Your task to perform on an android device: delete the emails in spam in the gmail app Image 0: 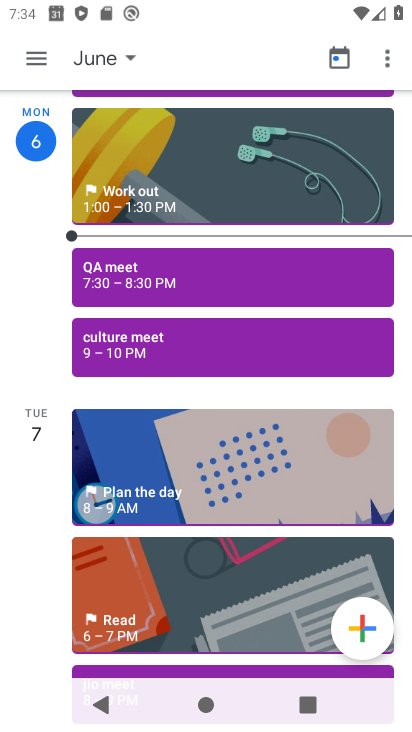
Step 0: press home button
Your task to perform on an android device: delete the emails in spam in the gmail app Image 1: 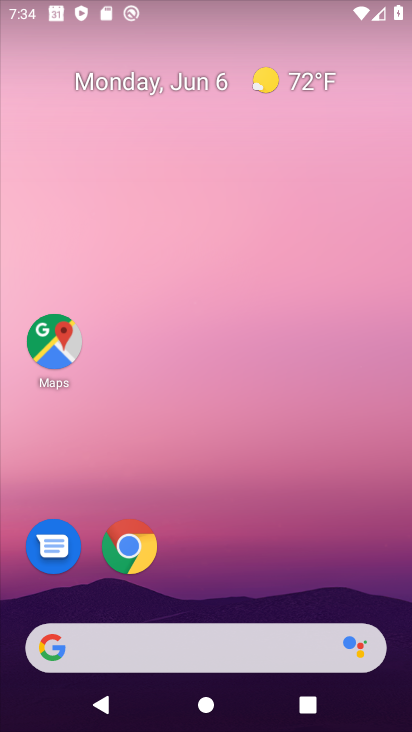
Step 1: drag from (207, 593) to (228, 273)
Your task to perform on an android device: delete the emails in spam in the gmail app Image 2: 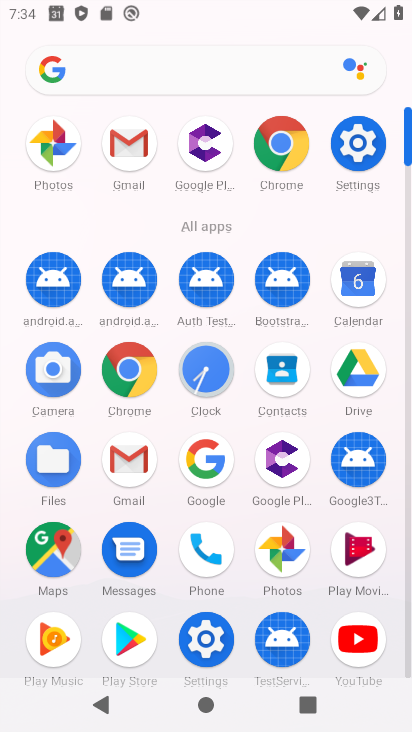
Step 2: click (135, 461)
Your task to perform on an android device: delete the emails in spam in the gmail app Image 3: 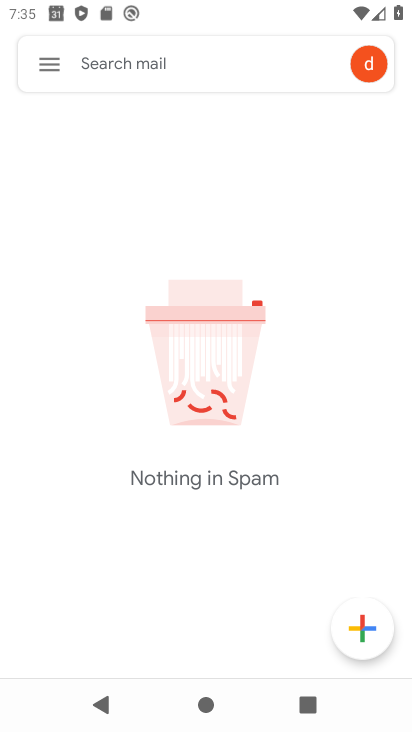
Step 3: click (51, 64)
Your task to perform on an android device: delete the emails in spam in the gmail app Image 4: 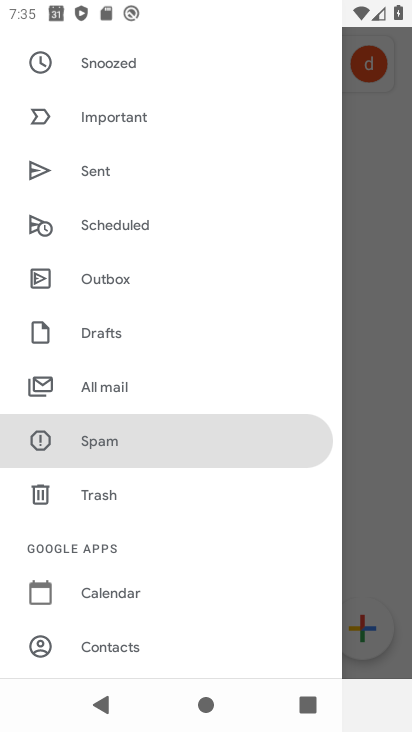
Step 4: click (127, 443)
Your task to perform on an android device: delete the emails in spam in the gmail app Image 5: 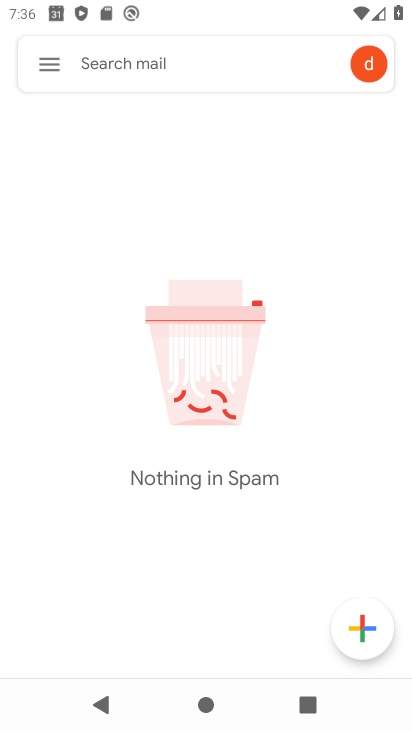
Step 5: task complete